Your task to perform on an android device: turn off airplane mode Image 0: 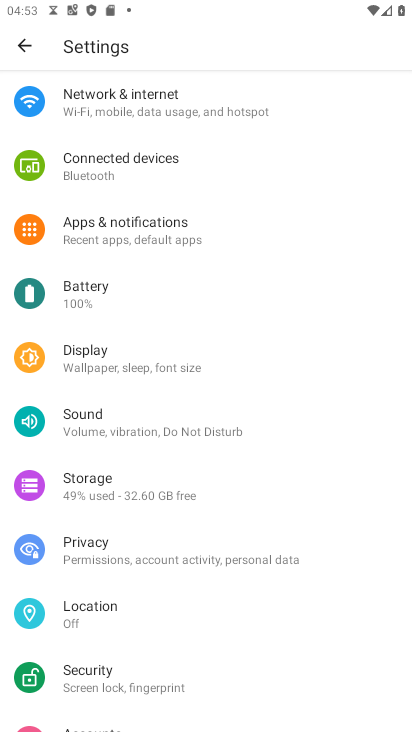
Step 0: press home button
Your task to perform on an android device: turn off airplane mode Image 1: 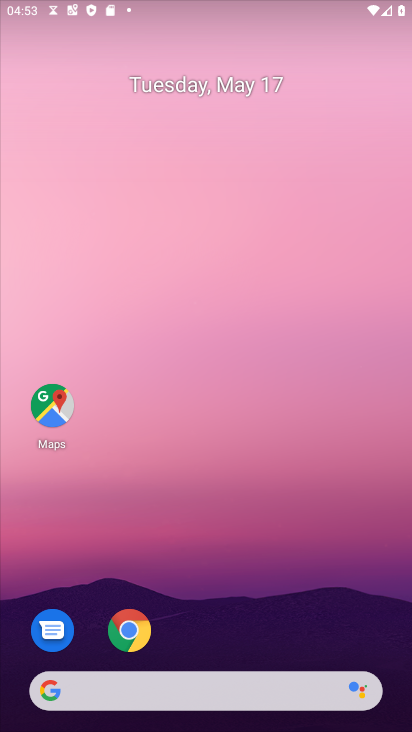
Step 1: task complete